Your task to perform on an android device: Open Yahoo.com Image 0: 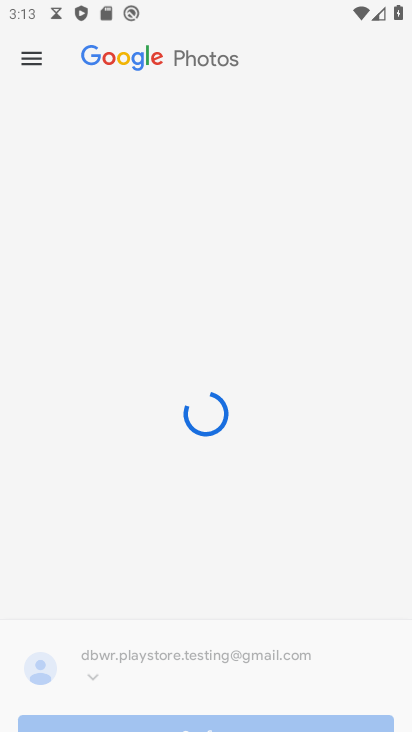
Step 0: press home button
Your task to perform on an android device: Open Yahoo.com Image 1: 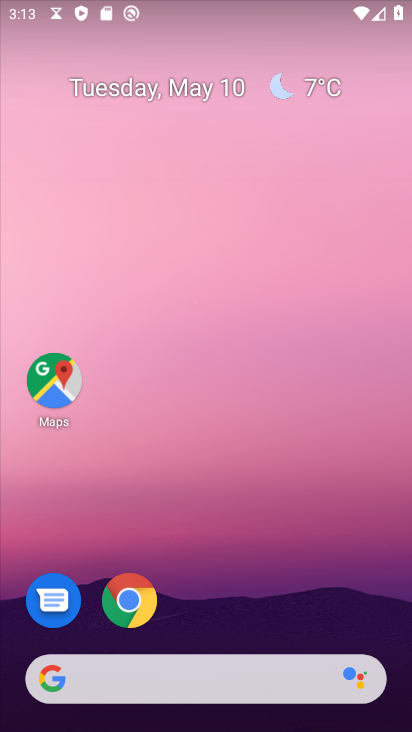
Step 1: click (91, 663)
Your task to perform on an android device: Open Yahoo.com Image 2: 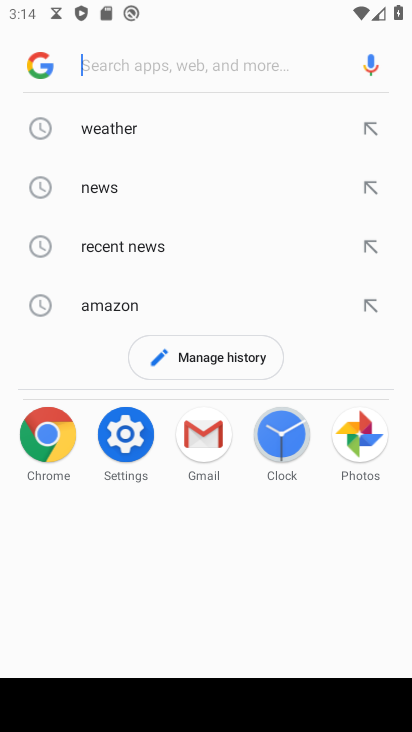
Step 2: type "yahoo.com"
Your task to perform on an android device: Open Yahoo.com Image 3: 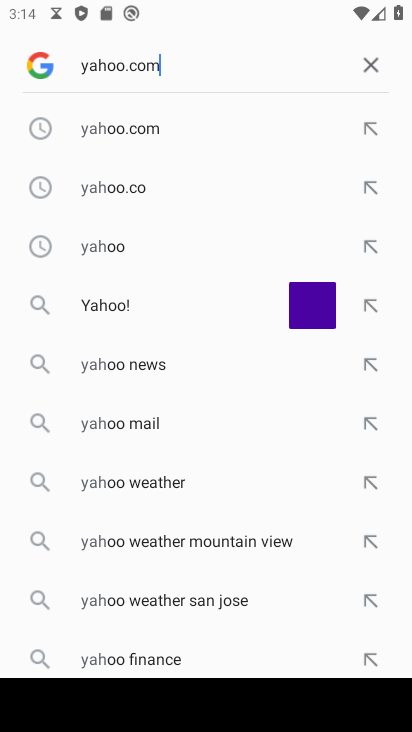
Step 3: type ""
Your task to perform on an android device: Open Yahoo.com Image 4: 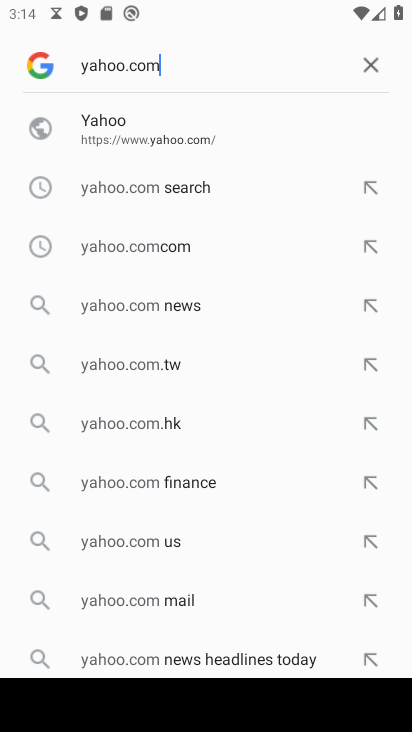
Step 4: type ""
Your task to perform on an android device: Open Yahoo.com Image 5: 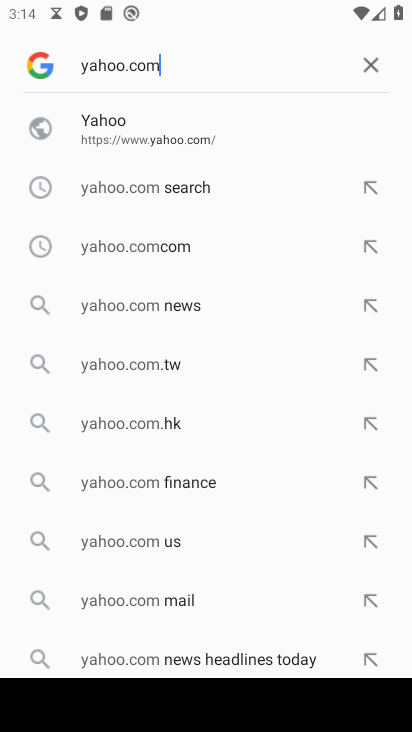
Step 5: type ""
Your task to perform on an android device: Open Yahoo.com Image 6: 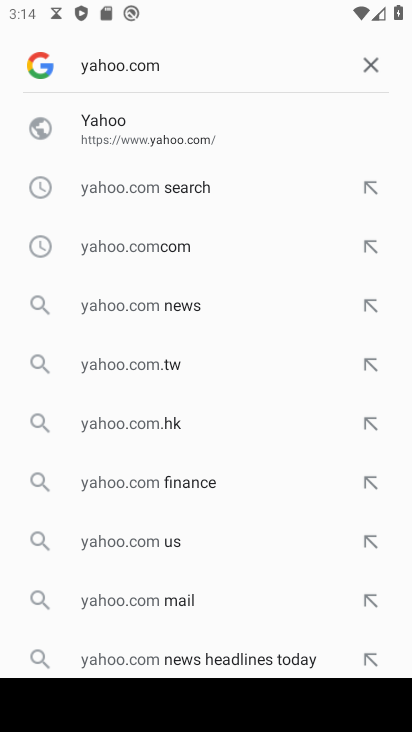
Step 6: type ""
Your task to perform on an android device: Open Yahoo.com Image 7: 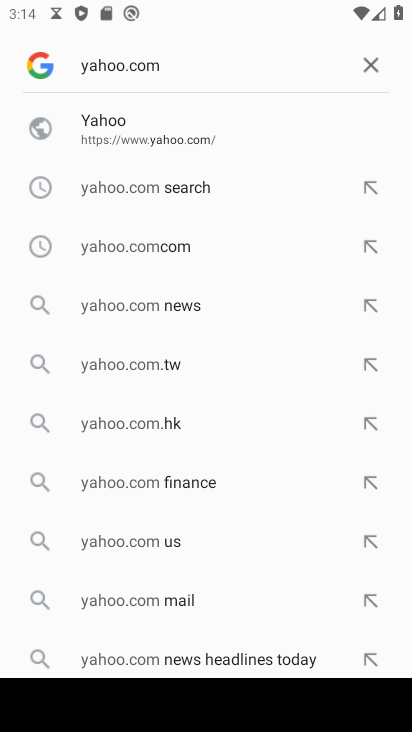
Step 7: type ""
Your task to perform on an android device: Open Yahoo.com Image 8: 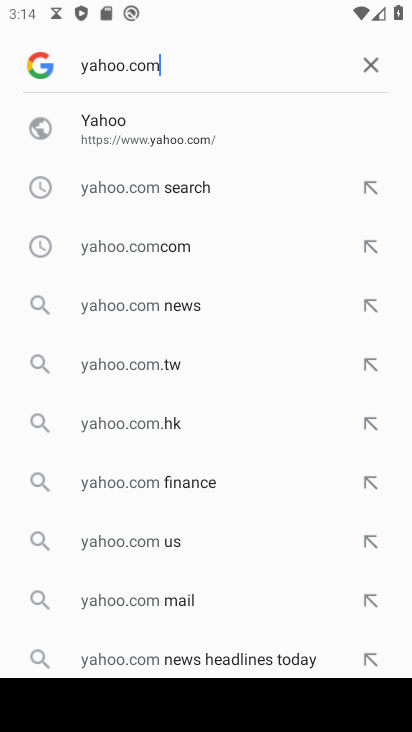
Step 8: click (82, 545)
Your task to perform on an android device: Open Yahoo.com Image 9: 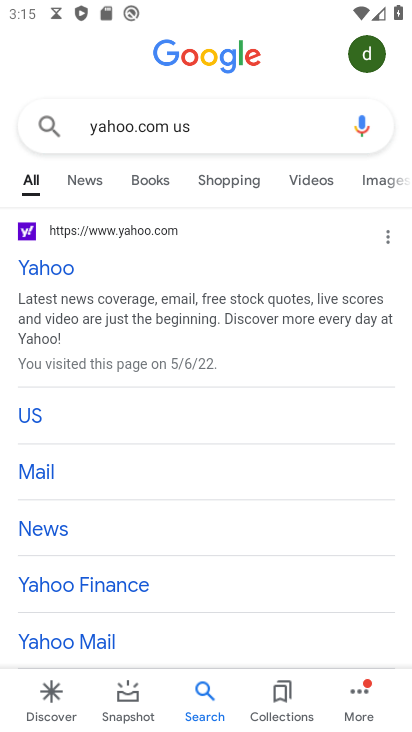
Step 9: drag from (58, 596) to (154, 115)
Your task to perform on an android device: Open Yahoo.com Image 10: 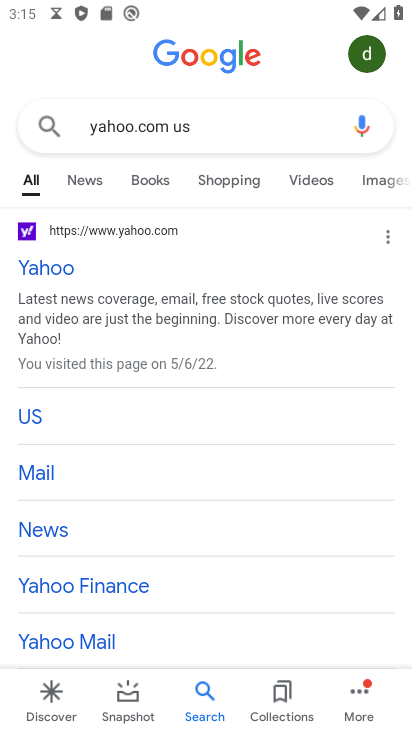
Step 10: drag from (124, 614) to (228, 129)
Your task to perform on an android device: Open Yahoo.com Image 11: 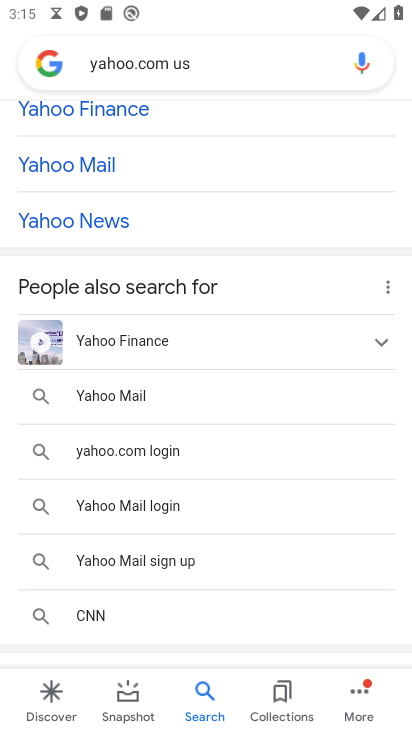
Step 11: drag from (160, 143) to (132, 561)
Your task to perform on an android device: Open Yahoo.com Image 12: 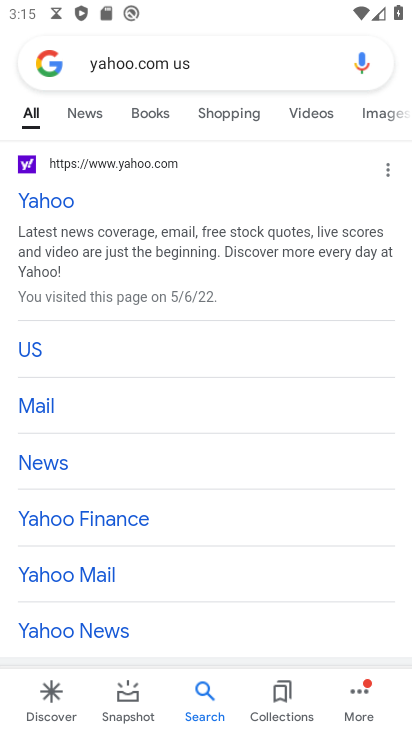
Step 12: click (120, 191)
Your task to perform on an android device: Open Yahoo.com Image 13: 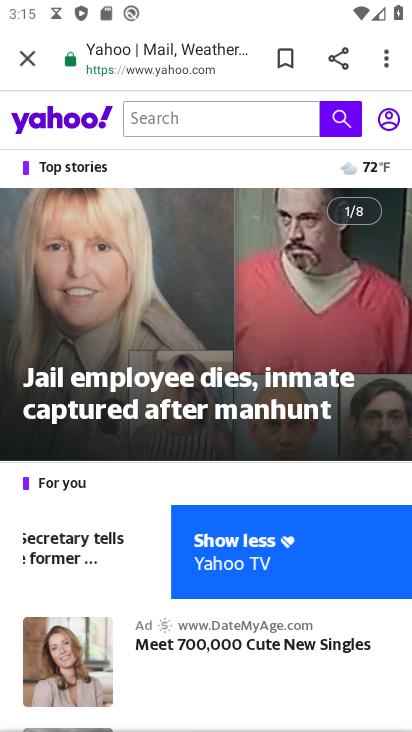
Step 13: task complete